Your task to perform on an android device: change your default location settings in chrome Image 0: 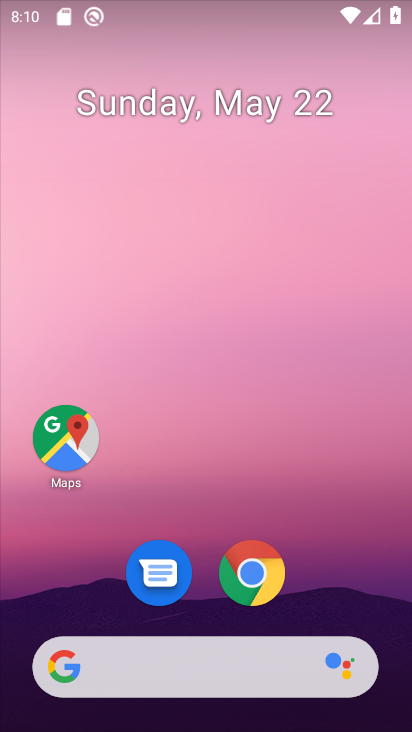
Step 0: drag from (217, 578) to (295, 82)
Your task to perform on an android device: change your default location settings in chrome Image 1: 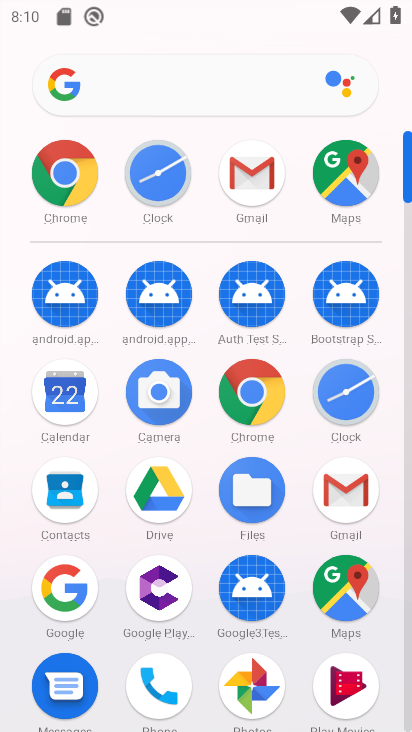
Step 1: click (259, 400)
Your task to perform on an android device: change your default location settings in chrome Image 2: 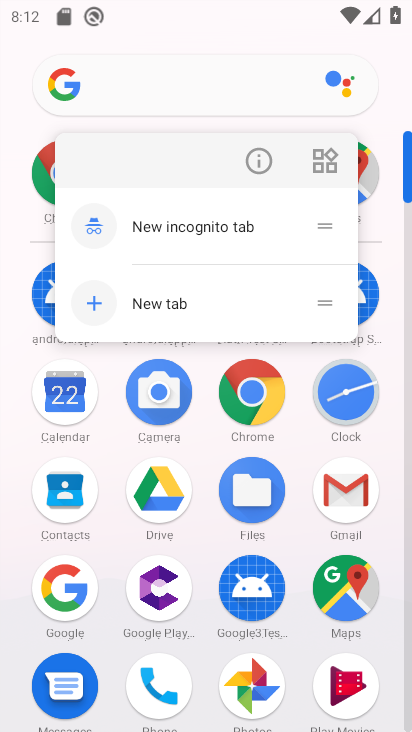
Step 2: click (261, 157)
Your task to perform on an android device: change your default location settings in chrome Image 3: 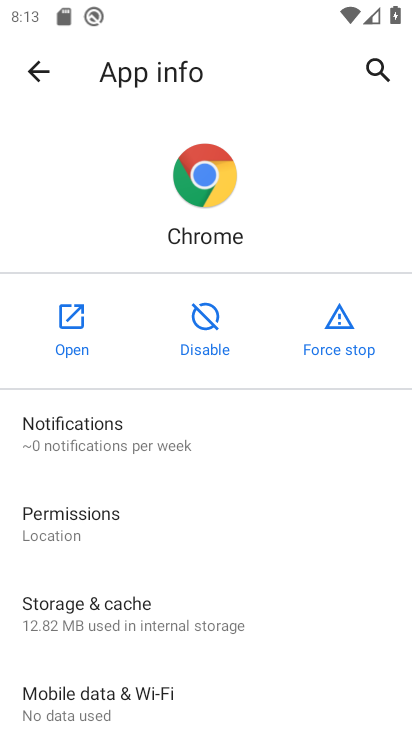
Step 3: click (76, 345)
Your task to perform on an android device: change your default location settings in chrome Image 4: 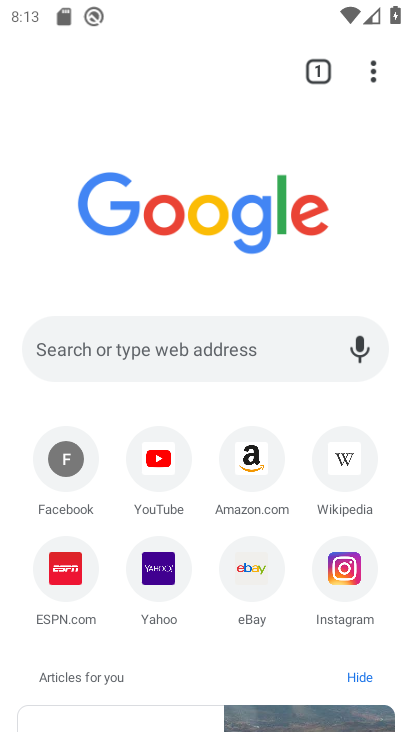
Step 4: click (386, 76)
Your task to perform on an android device: change your default location settings in chrome Image 5: 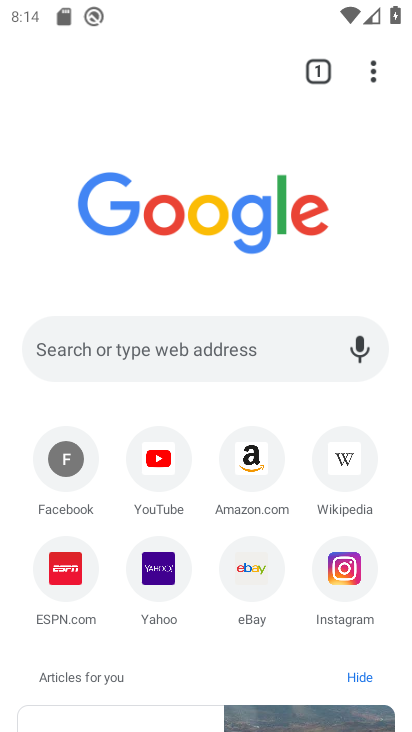
Step 5: click (367, 79)
Your task to perform on an android device: change your default location settings in chrome Image 6: 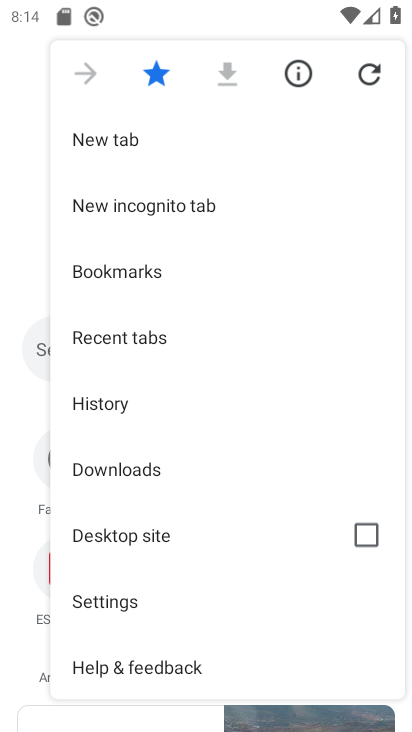
Step 6: click (109, 599)
Your task to perform on an android device: change your default location settings in chrome Image 7: 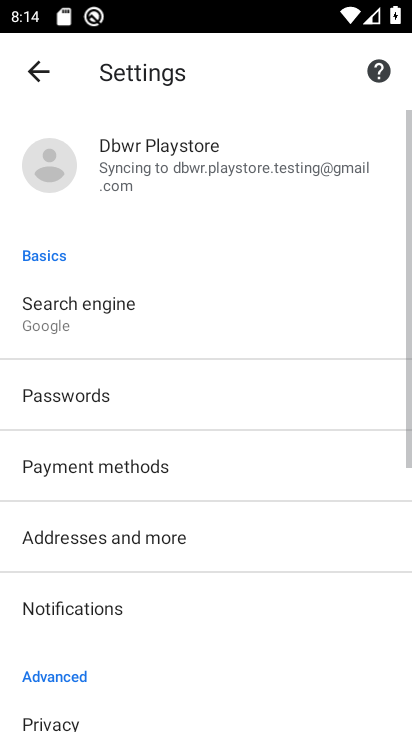
Step 7: drag from (139, 589) to (335, 183)
Your task to perform on an android device: change your default location settings in chrome Image 8: 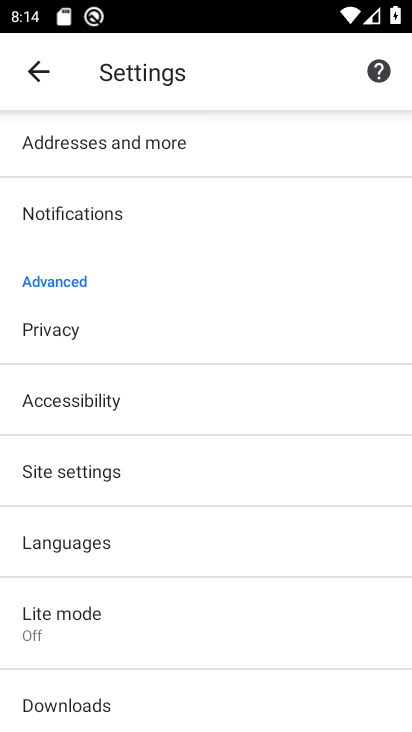
Step 8: click (109, 474)
Your task to perform on an android device: change your default location settings in chrome Image 9: 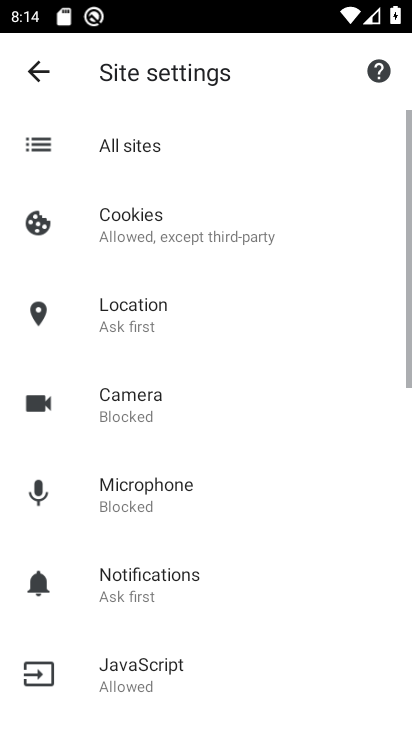
Step 9: click (191, 301)
Your task to perform on an android device: change your default location settings in chrome Image 10: 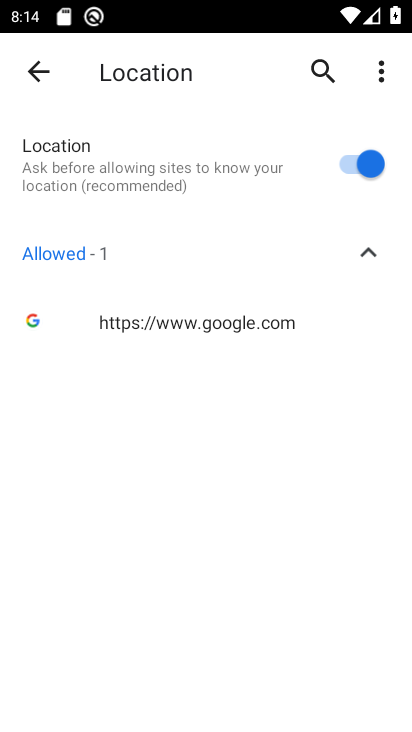
Step 10: task complete